Your task to perform on an android device: turn off data saver in the chrome app Image 0: 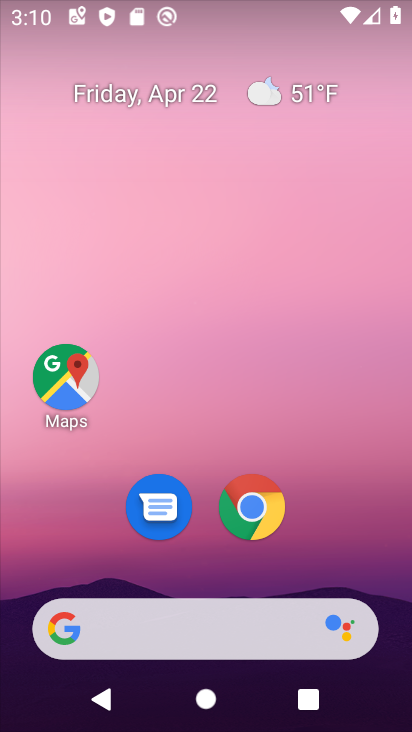
Step 0: drag from (198, 429) to (266, 3)
Your task to perform on an android device: turn off data saver in the chrome app Image 1: 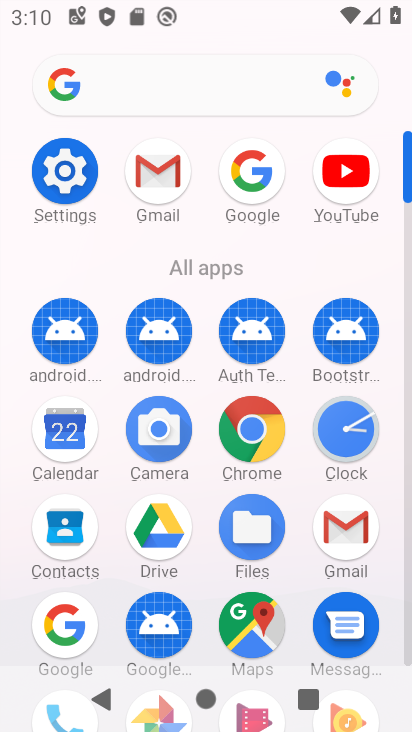
Step 1: click (76, 155)
Your task to perform on an android device: turn off data saver in the chrome app Image 2: 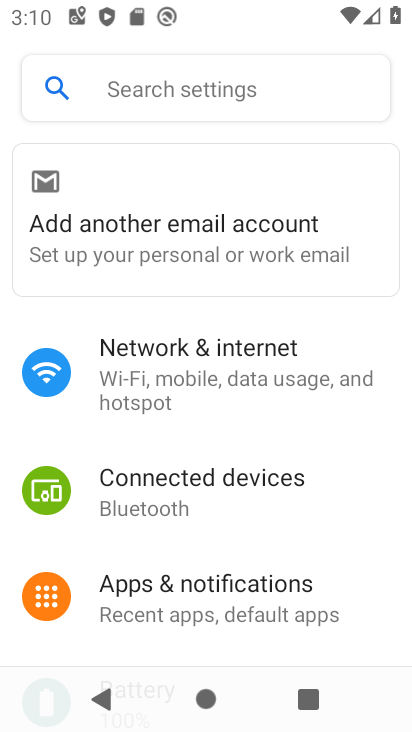
Step 2: drag from (198, 594) to (262, 61)
Your task to perform on an android device: turn off data saver in the chrome app Image 3: 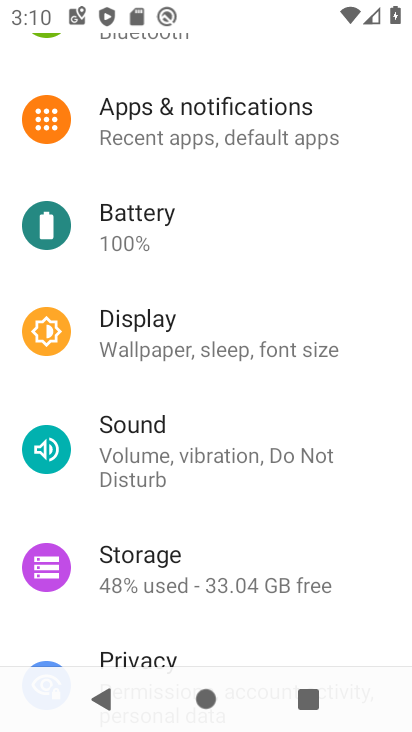
Step 3: press back button
Your task to perform on an android device: turn off data saver in the chrome app Image 4: 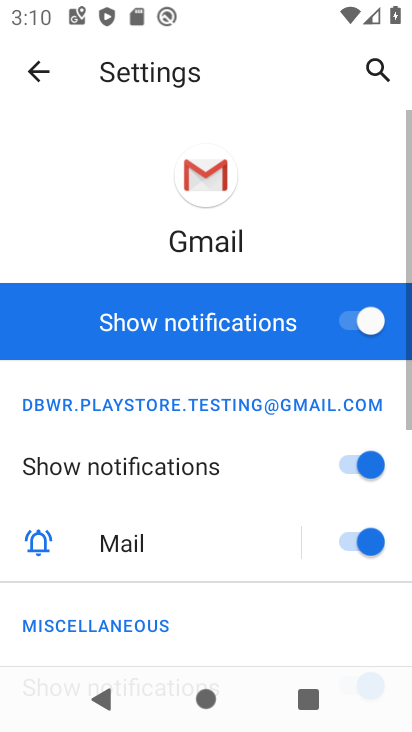
Step 4: press back button
Your task to perform on an android device: turn off data saver in the chrome app Image 5: 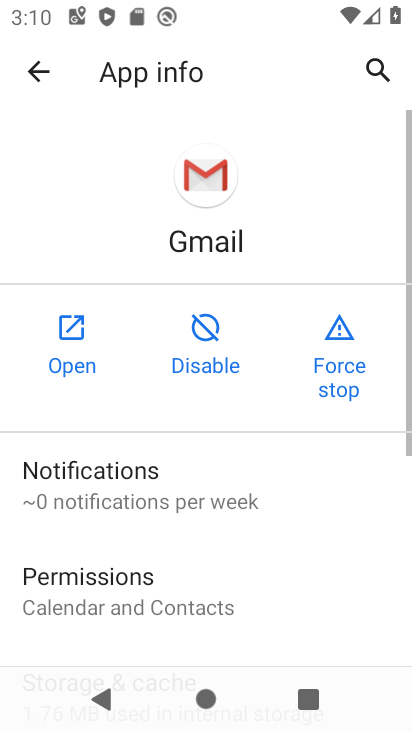
Step 5: press back button
Your task to perform on an android device: turn off data saver in the chrome app Image 6: 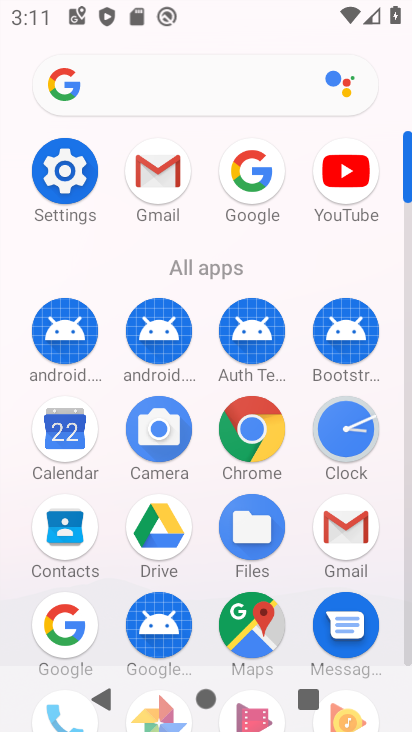
Step 6: click (255, 446)
Your task to perform on an android device: turn off data saver in the chrome app Image 7: 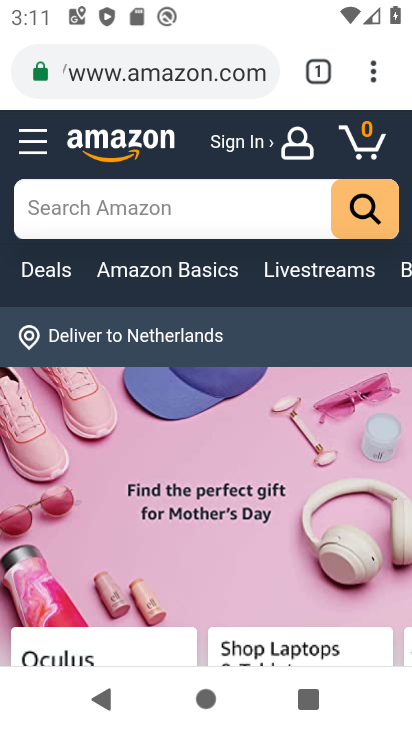
Step 7: drag from (372, 77) to (137, 495)
Your task to perform on an android device: turn off data saver in the chrome app Image 8: 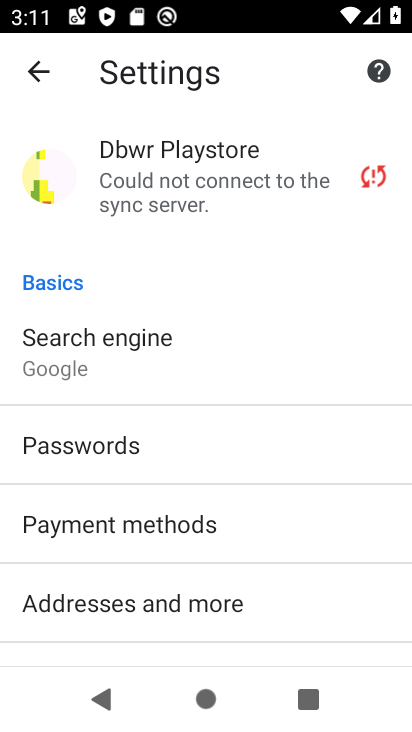
Step 8: drag from (196, 517) to (295, 140)
Your task to perform on an android device: turn off data saver in the chrome app Image 9: 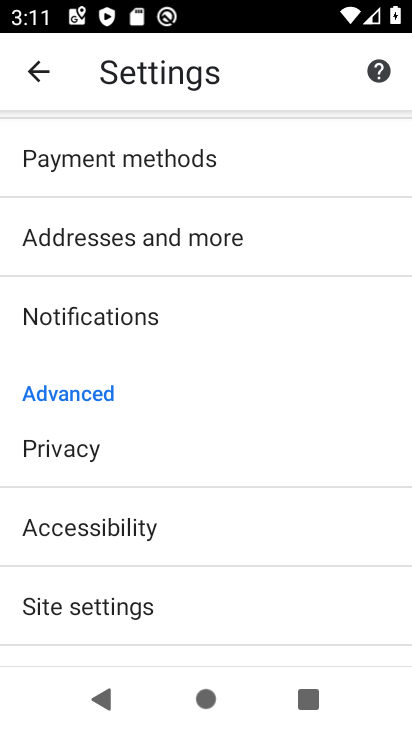
Step 9: click (147, 610)
Your task to perform on an android device: turn off data saver in the chrome app Image 10: 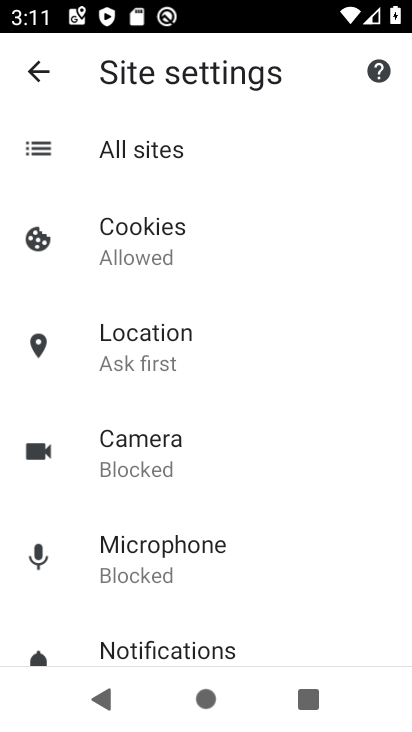
Step 10: click (34, 62)
Your task to perform on an android device: turn off data saver in the chrome app Image 11: 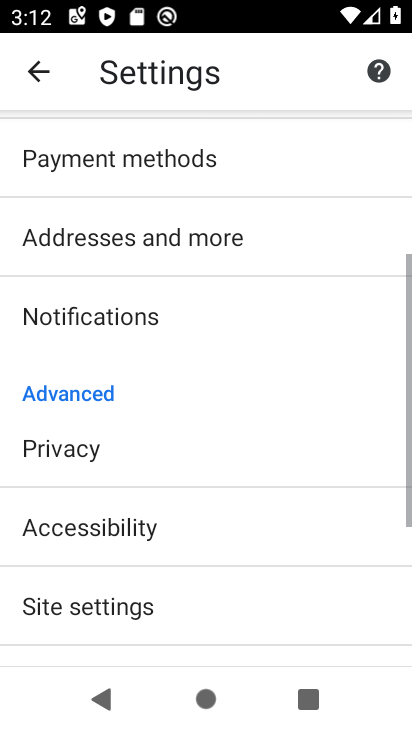
Step 11: drag from (190, 547) to (305, 23)
Your task to perform on an android device: turn off data saver in the chrome app Image 12: 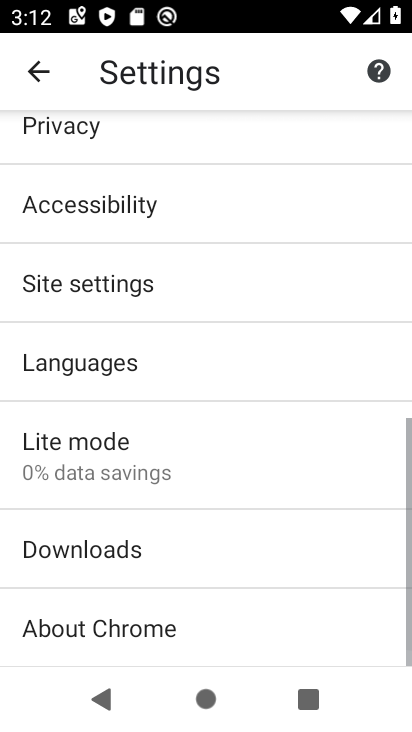
Step 12: click (165, 459)
Your task to perform on an android device: turn off data saver in the chrome app Image 13: 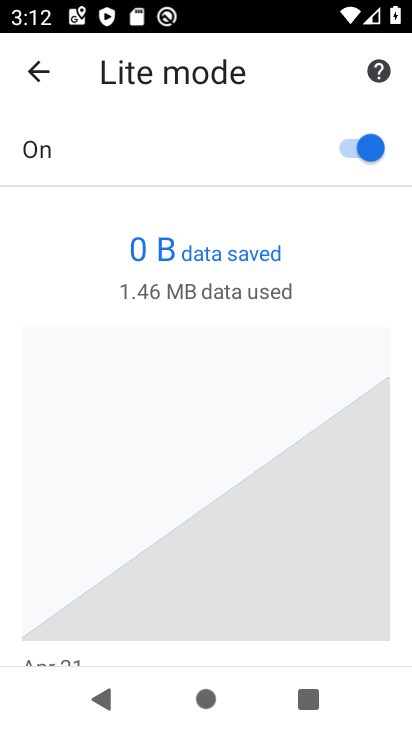
Step 13: click (354, 147)
Your task to perform on an android device: turn off data saver in the chrome app Image 14: 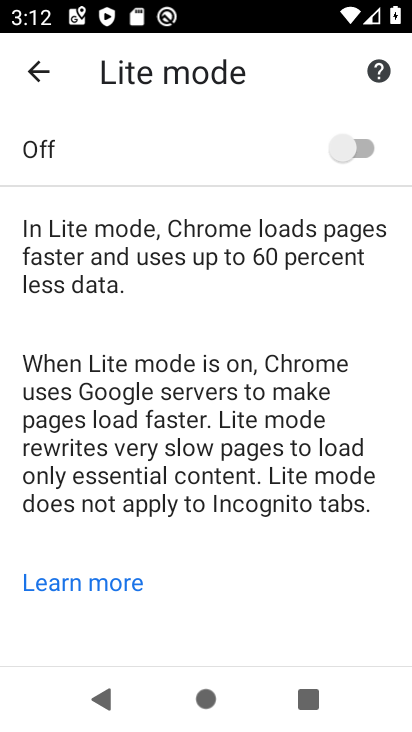
Step 14: task complete